Your task to perform on an android device: delete location history Image 0: 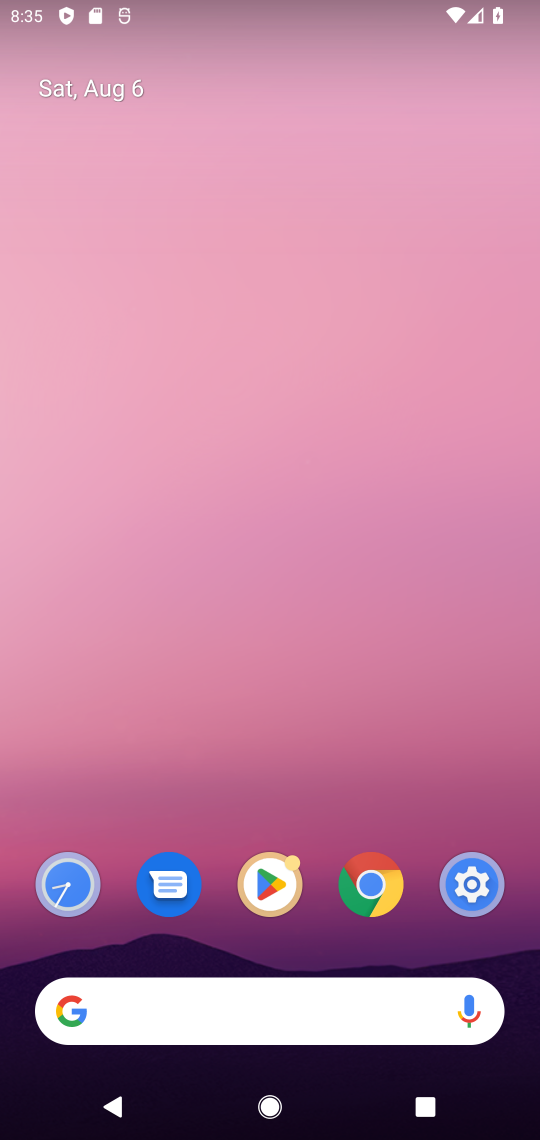
Step 0: drag from (416, 942) to (370, 159)
Your task to perform on an android device: delete location history Image 1: 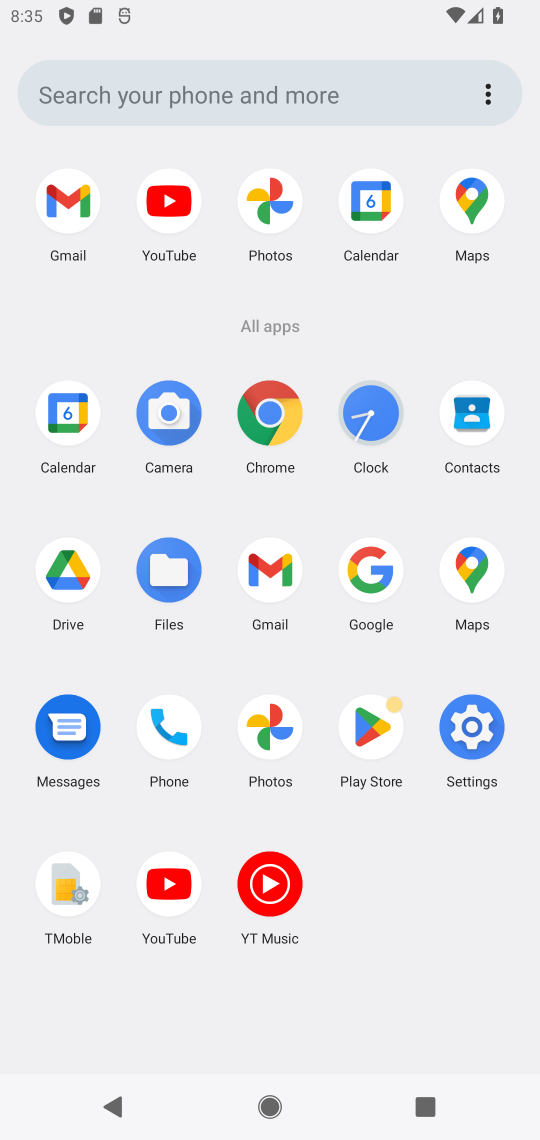
Step 1: click (474, 565)
Your task to perform on an android device: delete location history Image 2: 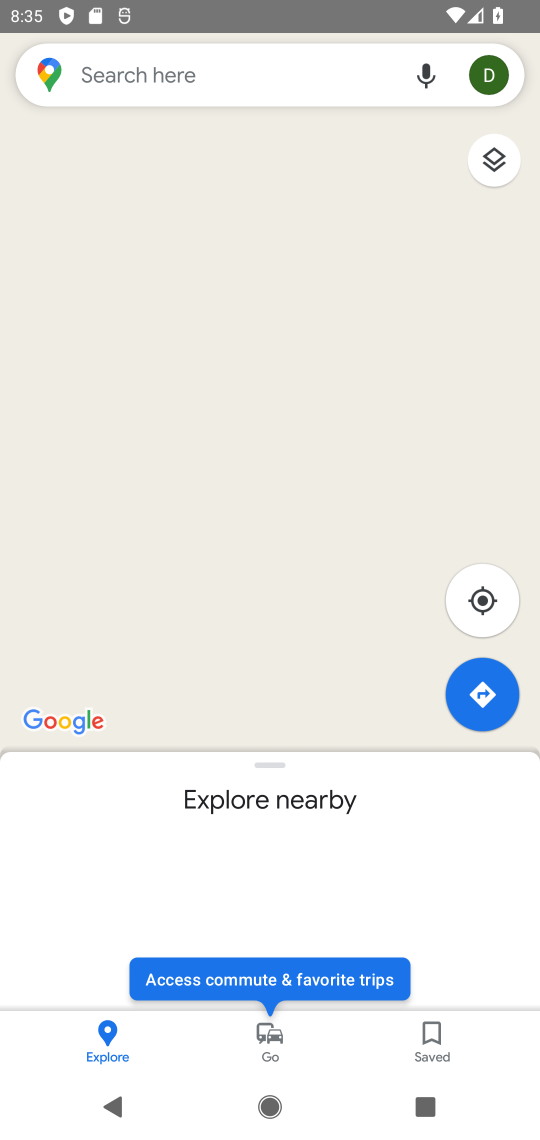
Step 2: click (492, 78)
Your task to perform on an android device: delete location history Image 3: 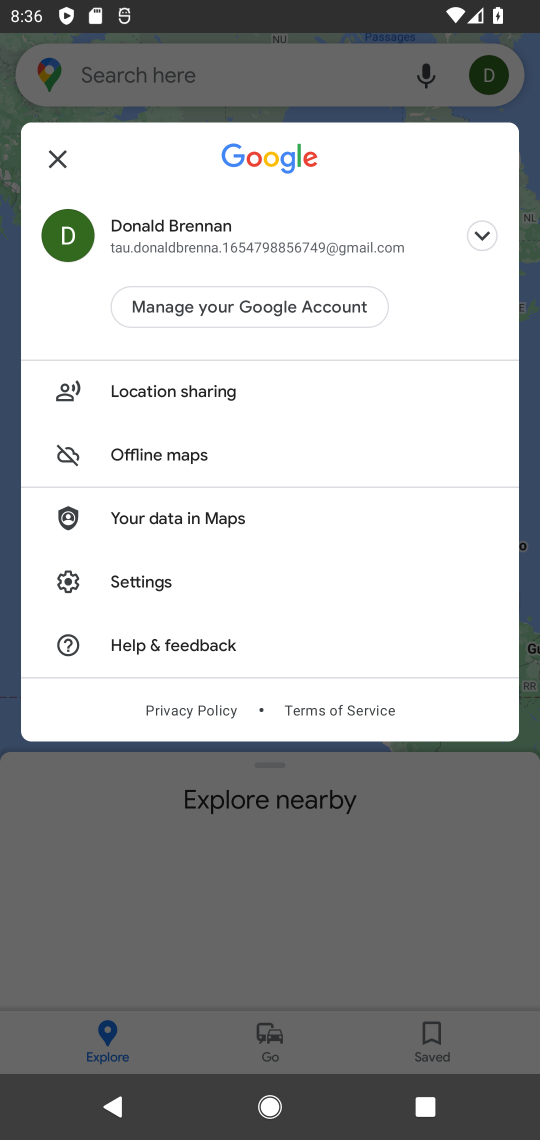
Step 3: click (139, 582)
Your task to perform on an android device: delete location history Image 4: 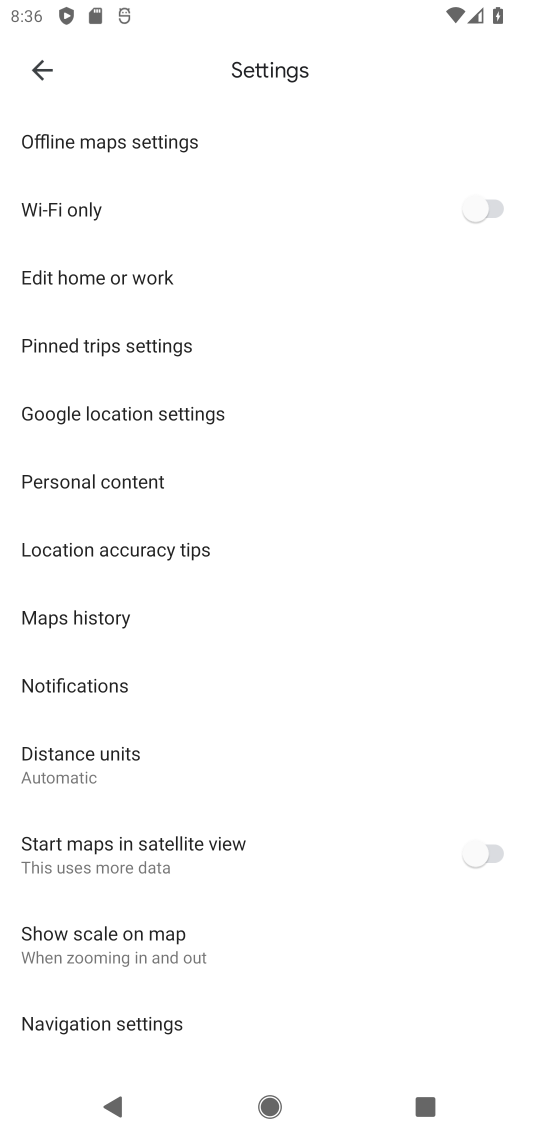
Step 4: click (86, 477)
Your task to perform on an android device: delete location history Image 5: 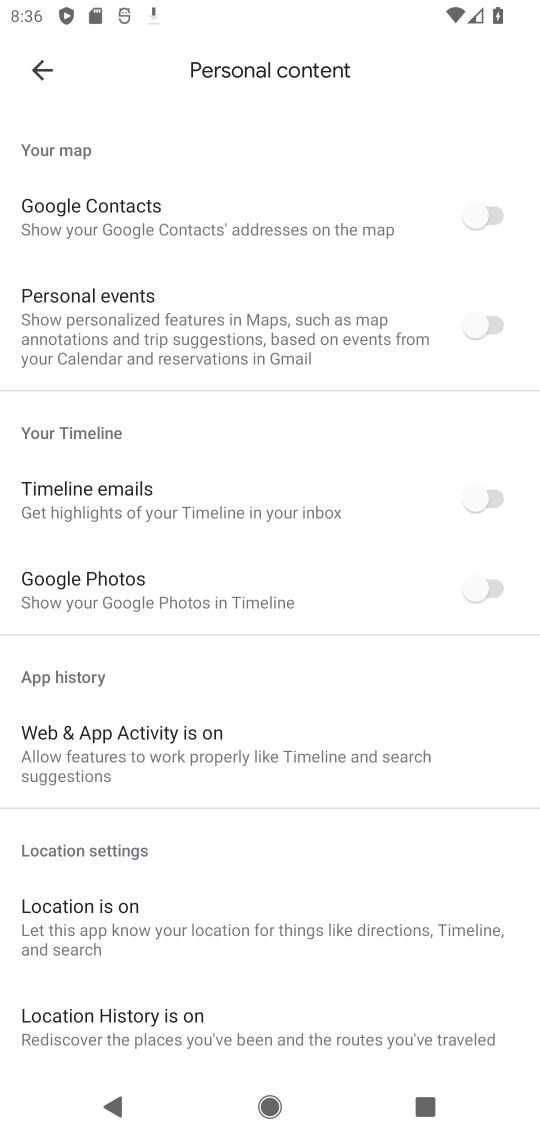
Step 5: drag from (343, 874) to (345, 292)
Your task to perform on an android device: delete location history Image 6: 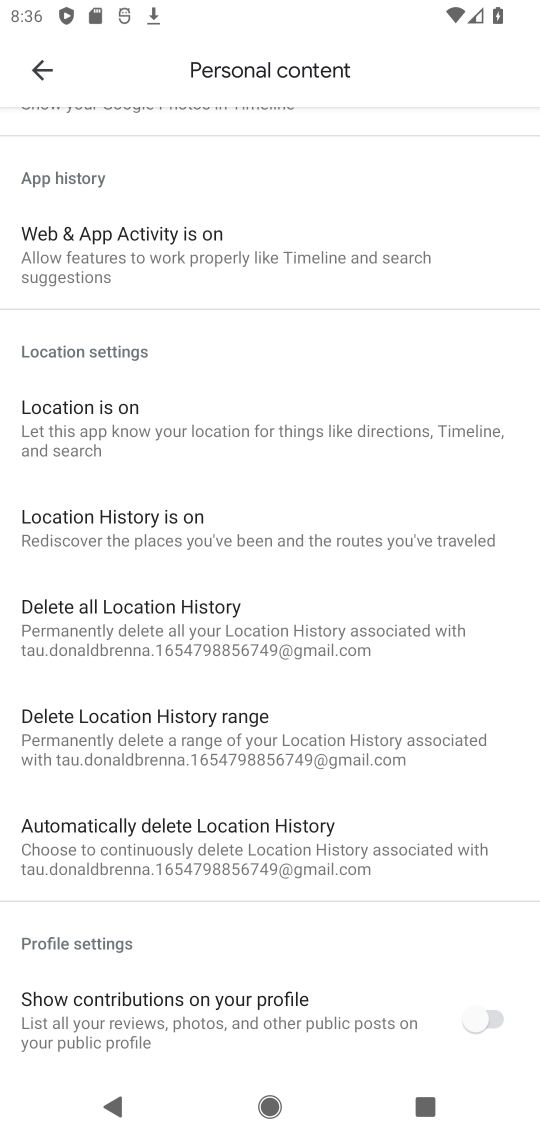
Step 6: click (161, 613)
Your task to perform on an android device: delete location history Image 7: 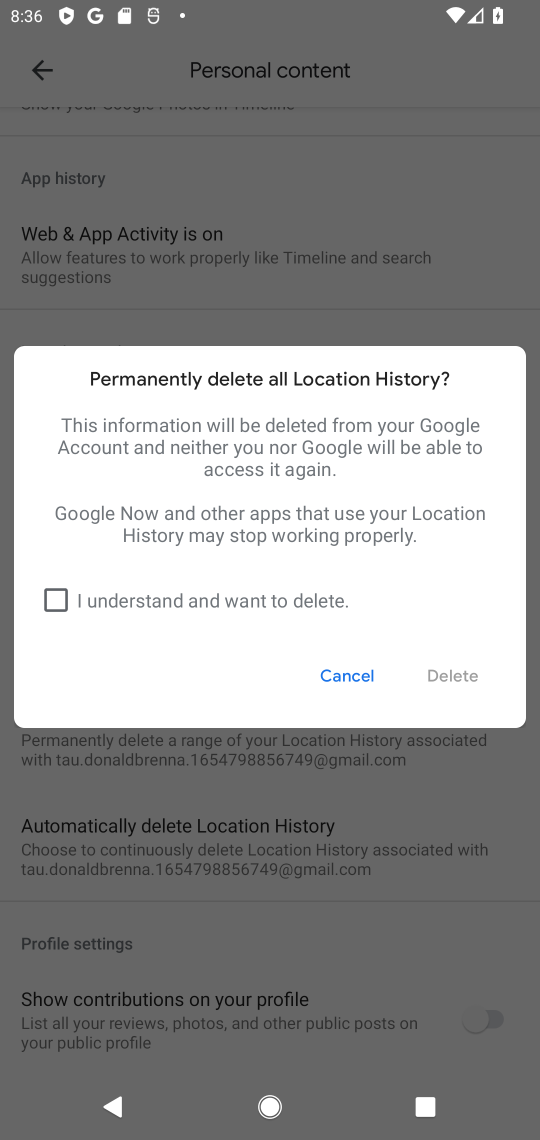
Step 7: click (55, 591)
Your task to perform on an android device: delete location history Image 8: 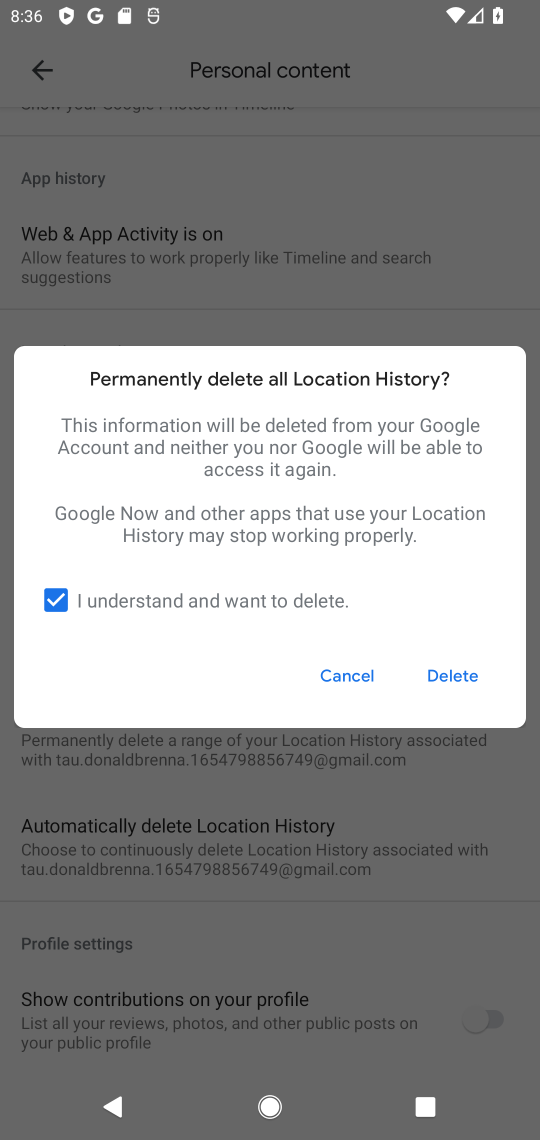
Step 8: click (451, 674)
Your task to perform on an android device: delete location history Image 9: 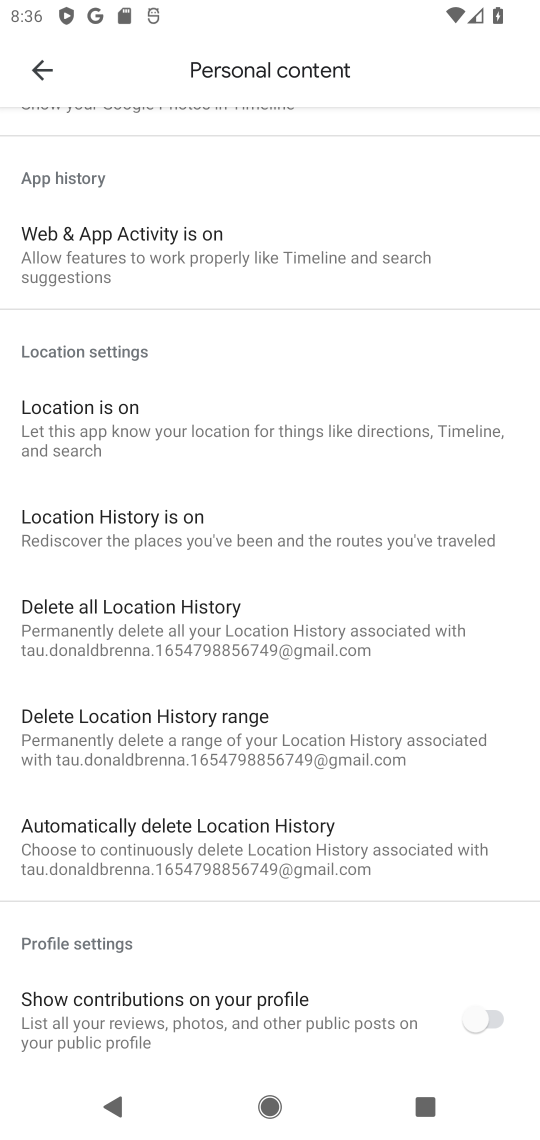
Step 9: task complete